Your task to perform on an android device: find snoozed emails in the gmail app Image 0: 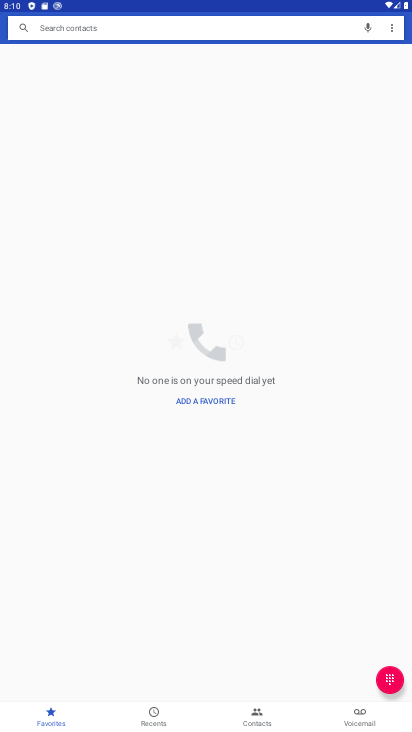
Step 0: press home button
Your task to perform on an android device: find snoozed emails in the gmail app Image 1: 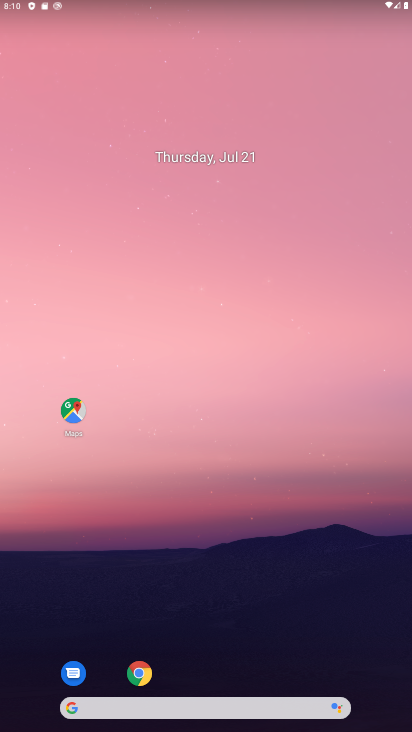
Step 1: drag from (187, 642) to (242, 91)
Your task to perform on an android device: find snoozed emails in the gmail app Image 2: 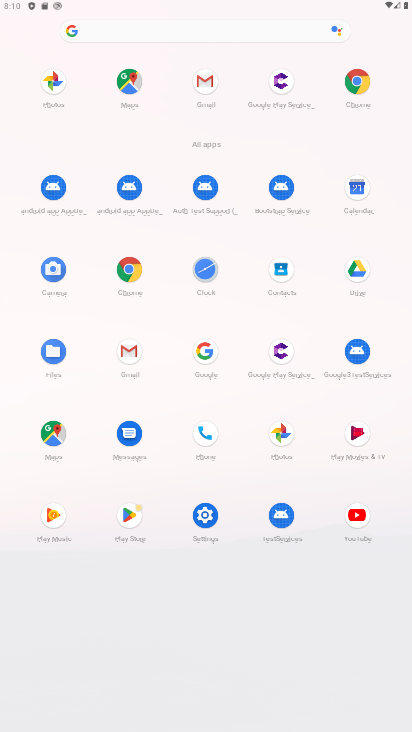
Step 2: click (216, 97)
Your task to perform on an android device: find snoozed emails in the gmail app Image 3: 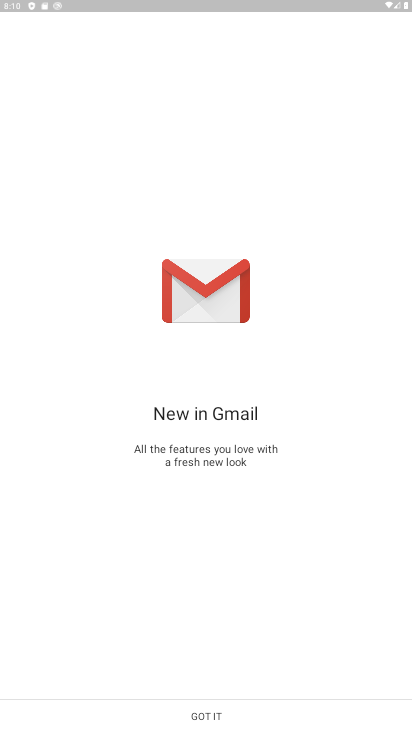
Step 3: click (257, 704)
Your task to perform on an android device: find snoozed emails in the gmail app Image 4: 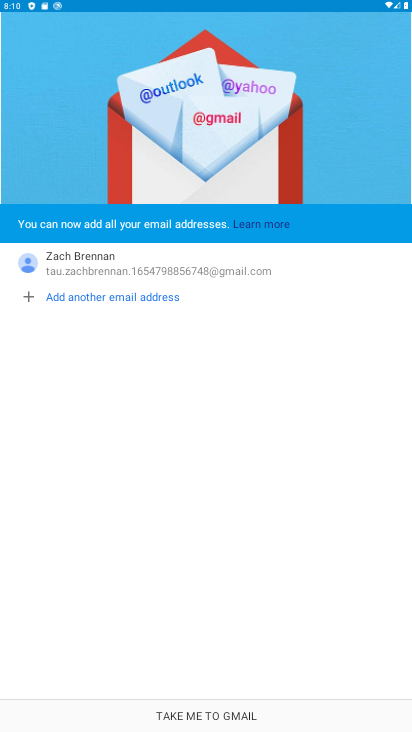
Step 4: click (198, 717)
Your task to perform on an android device: find snoozed emails in the gmail app Image 5: 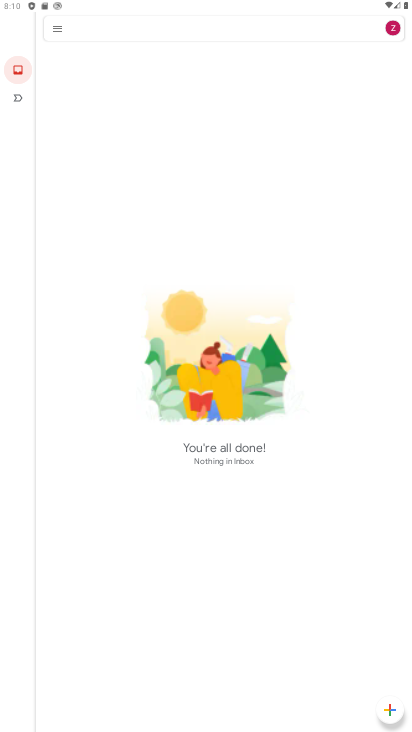
Step 5: click (56, 23)
Your task to perform on an android device: find snoozed emails in the gmail app Image 6: 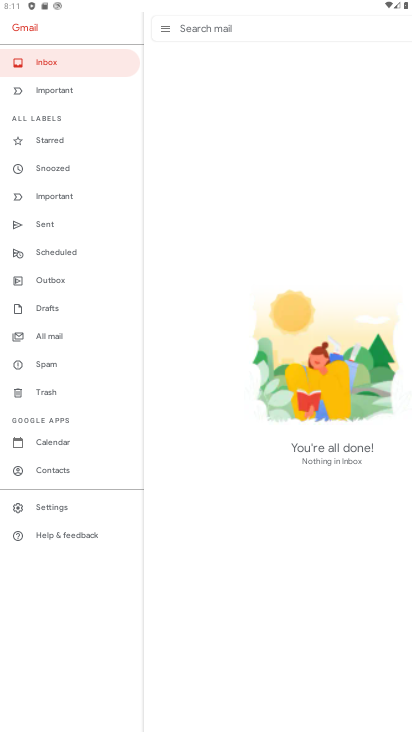
Step 6: click (58, 167)
Your task to perform on an android device: find snoozed emails in the gmail app Image 7: 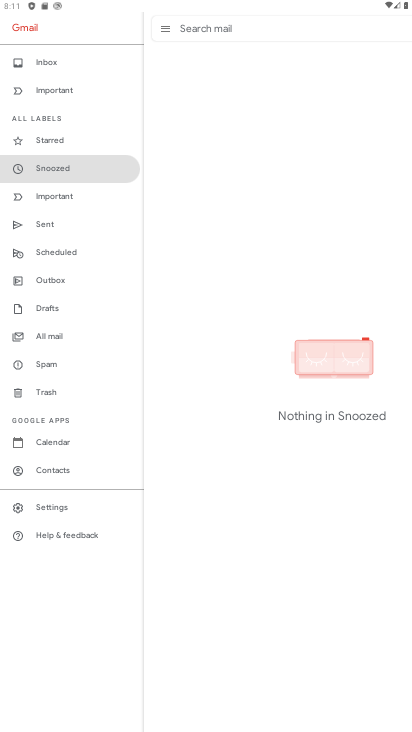
Step 7: task complete